Your task to perform on an android device: Go to Yahoo.com Image 0: 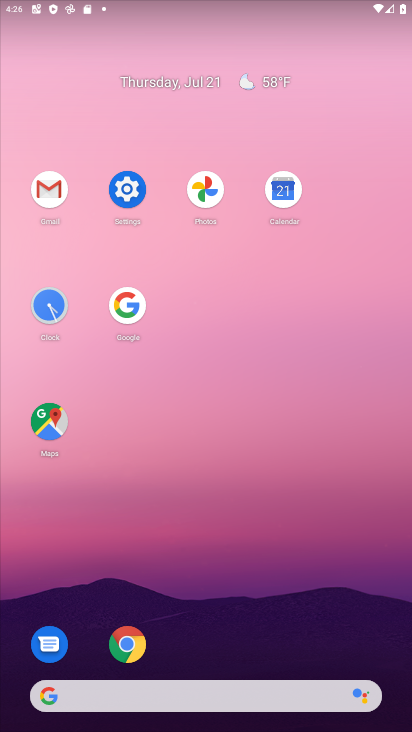
Step 0: click (114, 637)
Your task to perform on an android device: Go to Yahoo.com Image 1: 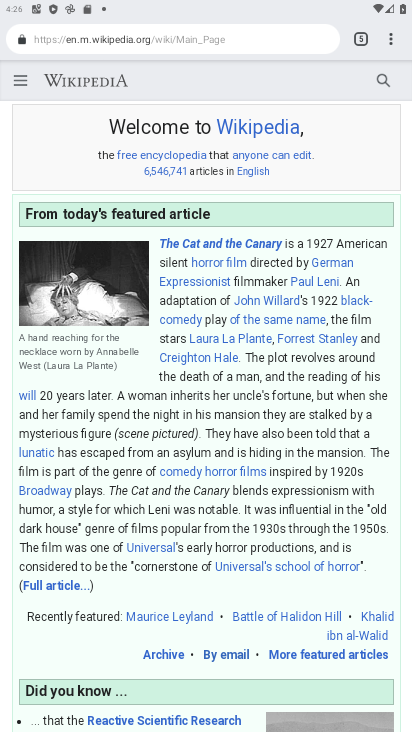
Step 1: click (357, 36)
Your task to perform on an android device: Go to Yahoo.com Image 2: 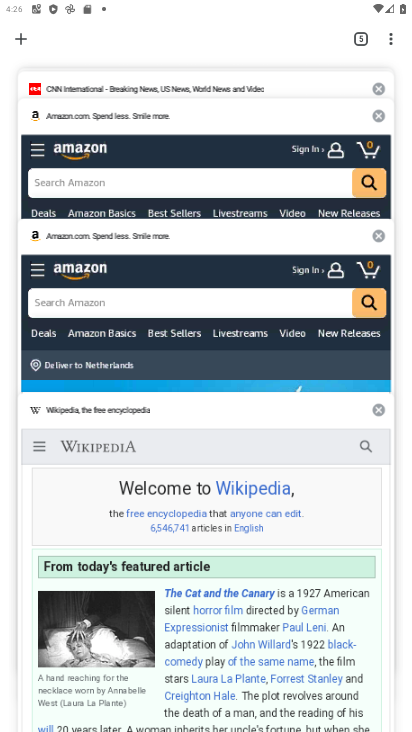
Step 2: click (19, 43)
Your task to perform on an android device: Go to Yahoo.com Image 3: 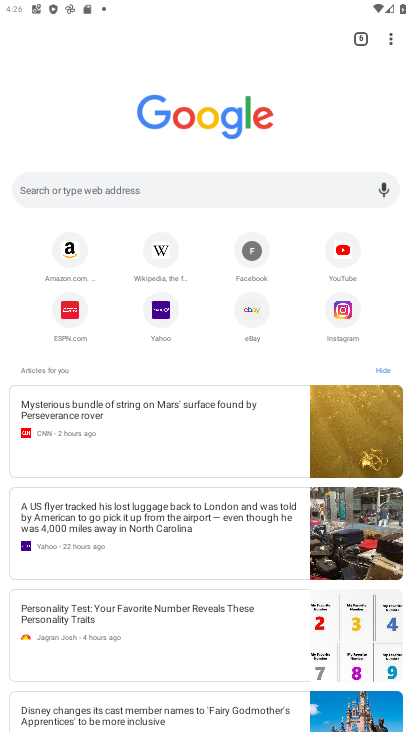
Step 3: click (62, 248)
Your task to perform on an android device: Go to Yahoo.com Image 4: 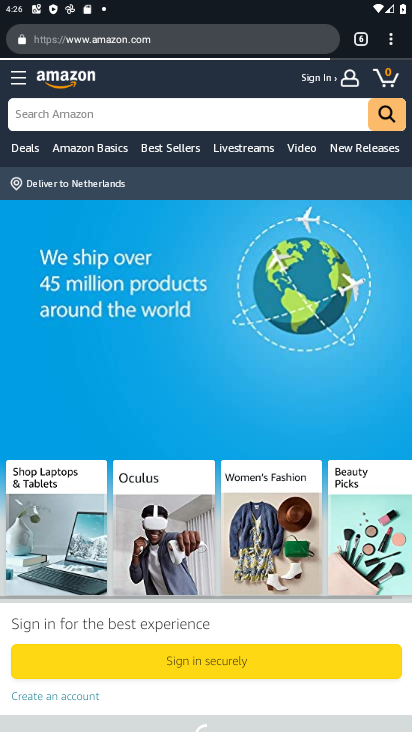
Step 4: task complete